Your task to perform on an android device: Go to CNN.com Image 0: 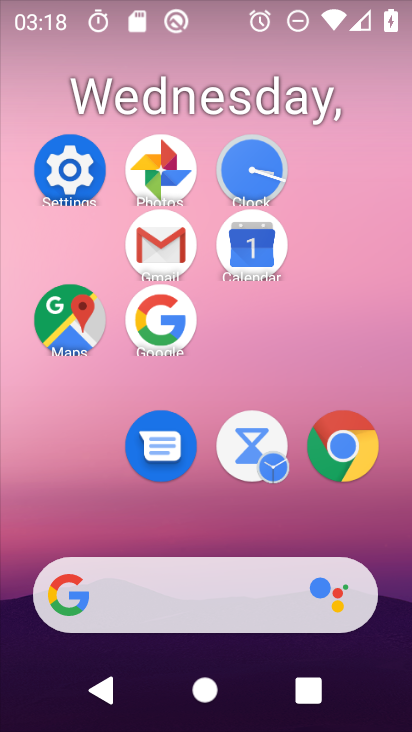
Step 0: click (337, 438)
Your task to perform on an android device: Go to CNN.com Image 1: 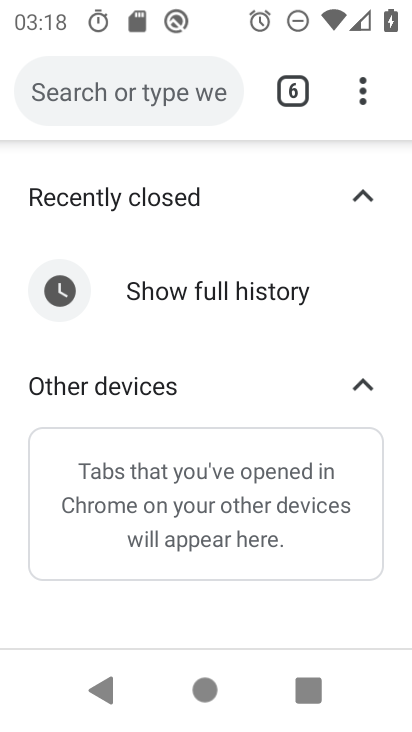
Step 1: click (302, 81)
Your task to perform on an android device: Go to CNN.com Image 2: 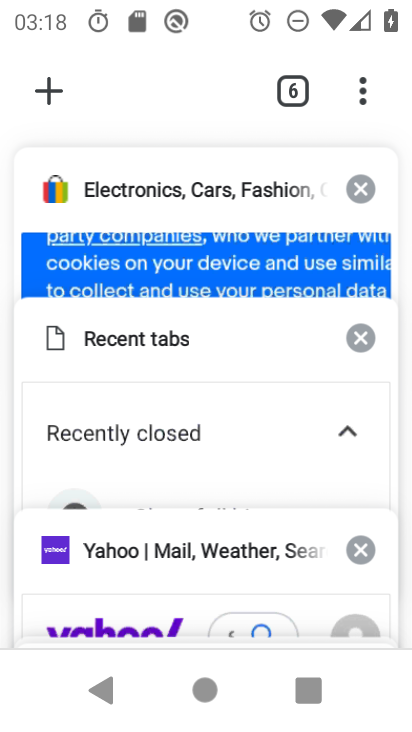
Step 2: drag from (216, 241) to (234, 576)
Your task to perform on an android device: Go to CNN.com Image 3: 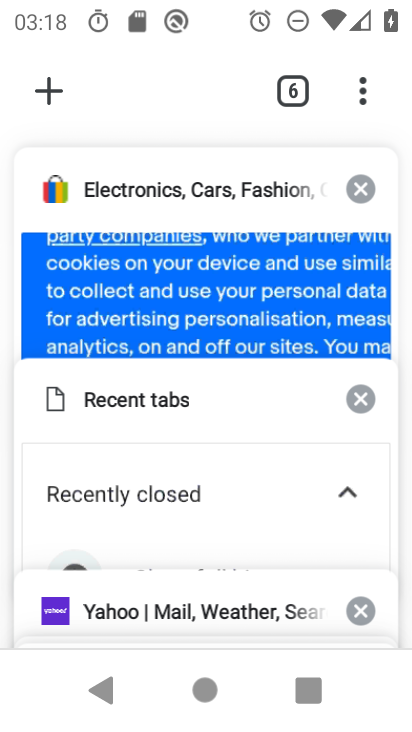
Step 3: drag from (207, 176) to (241, 643)
Your task to perform on an android device: Go to CNN.com Image 4: 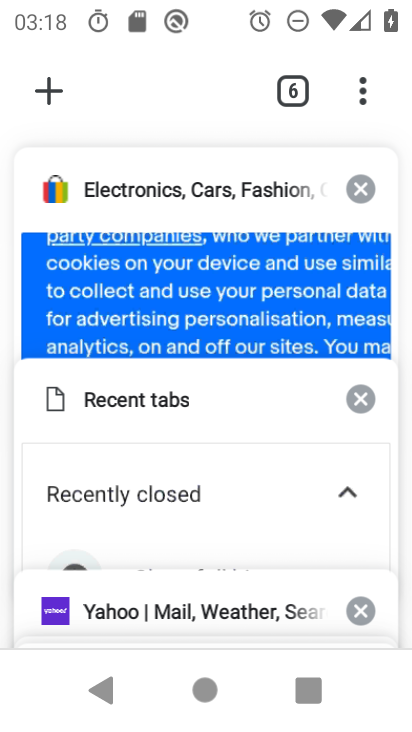
Step 4: drag from (221, 543) to (205, 133)
Your task to perform on an android device: Go to CNN.com Image 5: 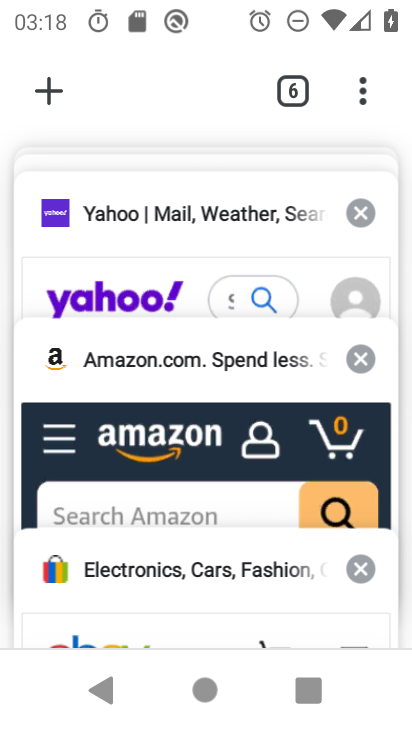
Step 5: drag from (216, 448) to (221, 30)
Your task to perform on an android device: Go to CNN.com Image 6: 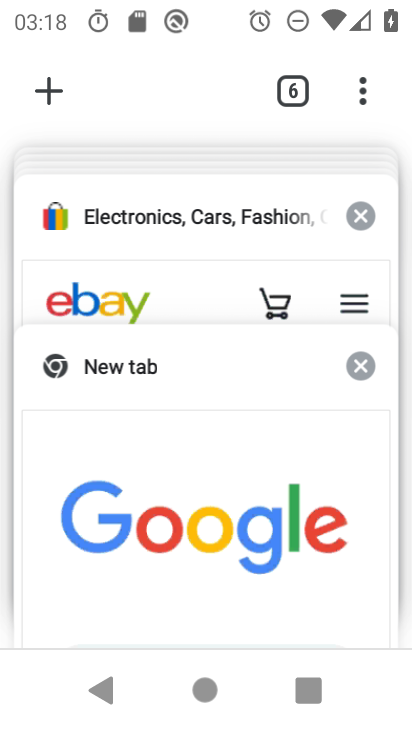
Step 6: drag from (226, 449) to (222, 140)
Your task to perform on an android device: Go to CNN.com Image 7: 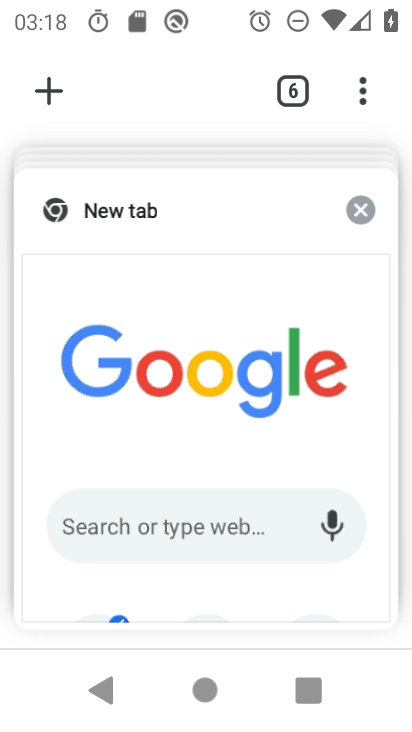
Step 7: click (59, 76)
Your task to perform on an android device: Go to CNN.com Image 8: 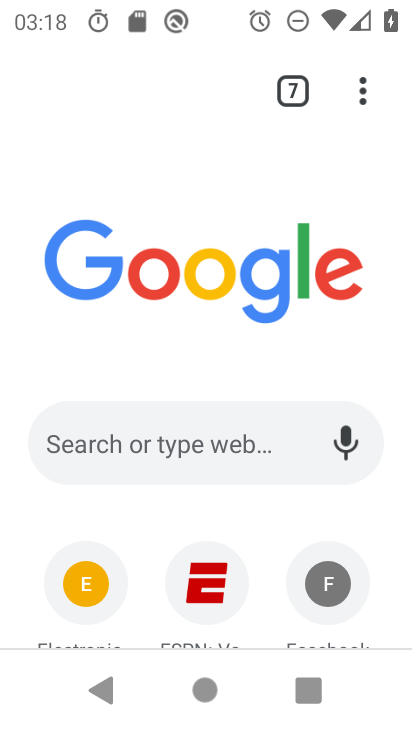
Step 8: drag from (280, 538) to (275, 147)
Your task to perform on an android device: Go to CNN.com Image 9: 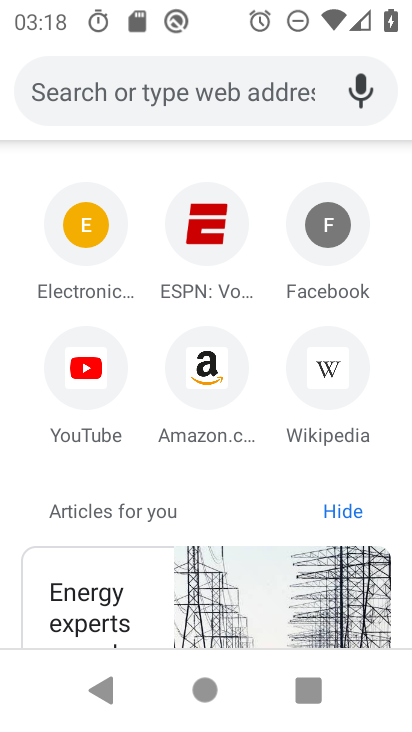
Step 9: click (125, 95)
Your task to perform on an android device: Go to CNN.com Image 10: 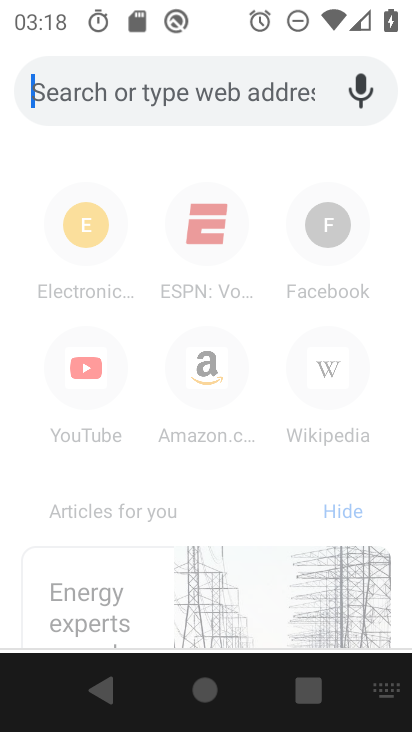
Step 10: type ""
Your task to perform on an android device: Go to CNN.com Image 11: 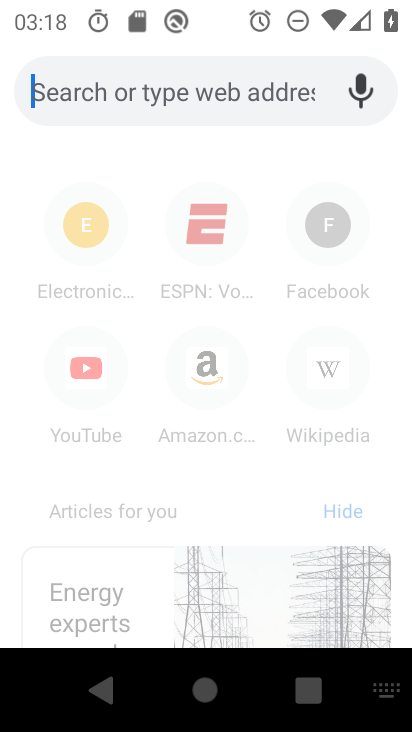
Step 11: type "cnn"
Your task to perform on an android device: Go to CNN.com Image 12: 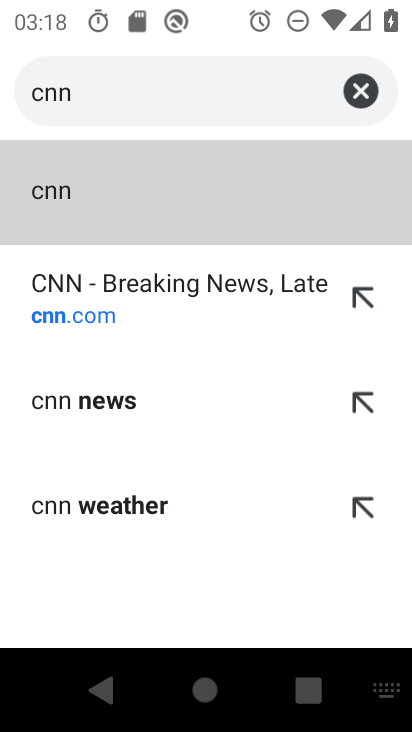
Step 12: click (55, 309)
Your task to perform on an android device: Go to CNN.com Image 13: 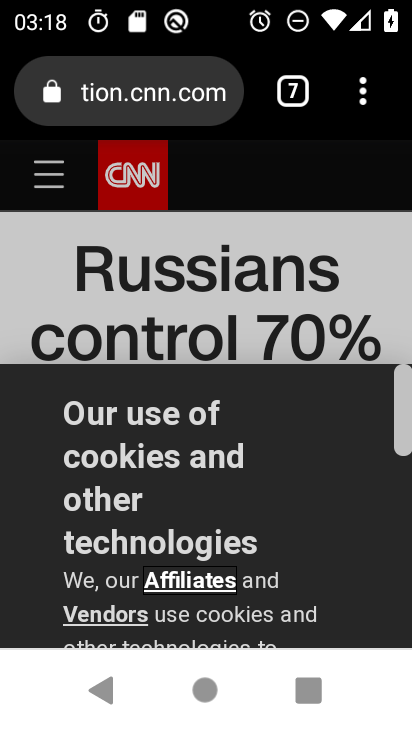
Step 13: task complete